Your task to perform on an android device: Go to network settings Image 0: 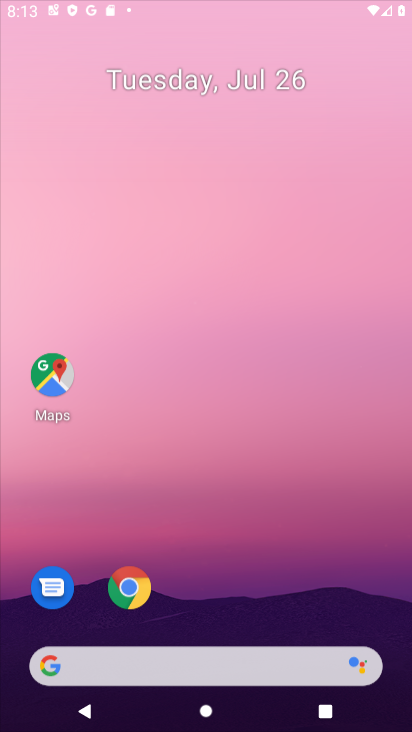
Step 0: press home button
Your task to perform on an android device: Go to network settings Image 1: 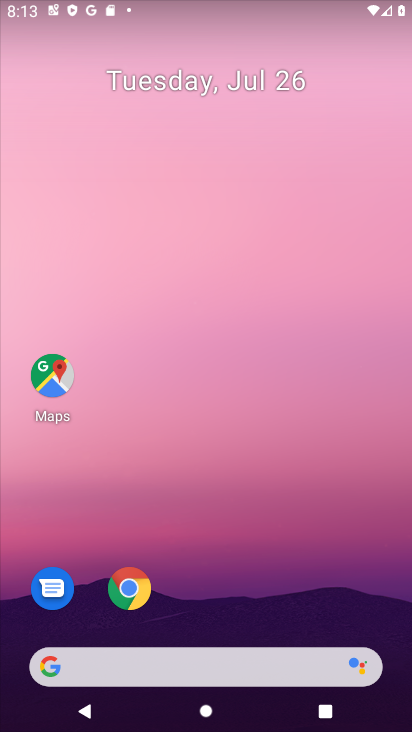
Step 1: drag from (249, 620) to (199, 111)
Your task to perform on an android device: Go to network settings Image 2: 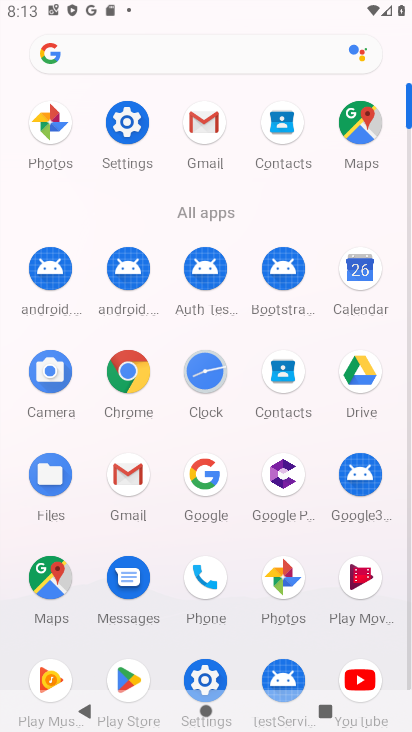
Step 2: click (128, 128)
Your task to perform on an android device: Go to network settings Image 3: 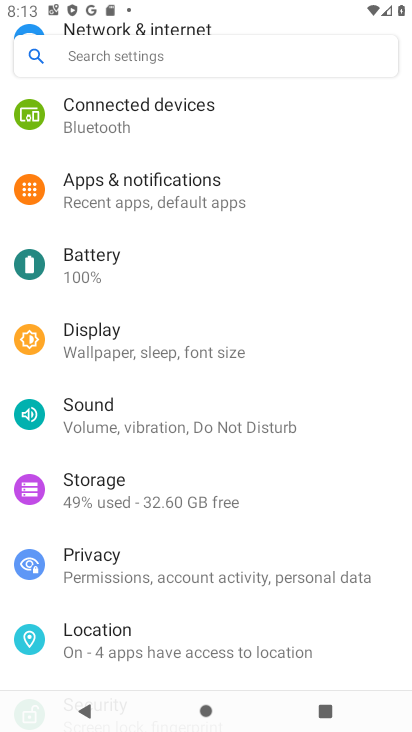
Step 3: drag from (180, 145) to (182, 275)
Your task to perform on an android device: Go to network settings Image 4: 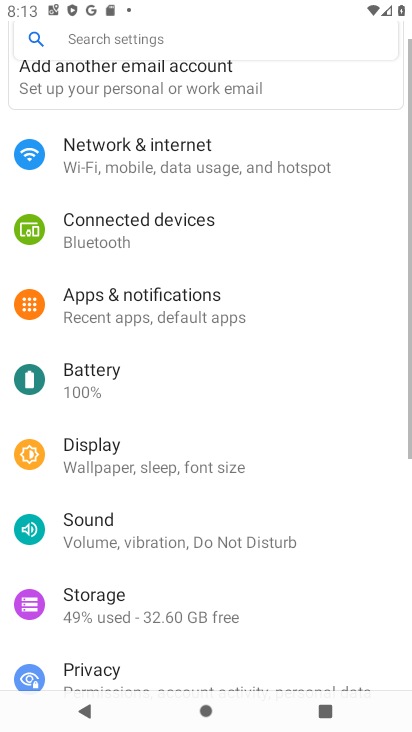
Step 4: click (157, 163)
Your task to perform on an android device: Go to network settings Image 5: 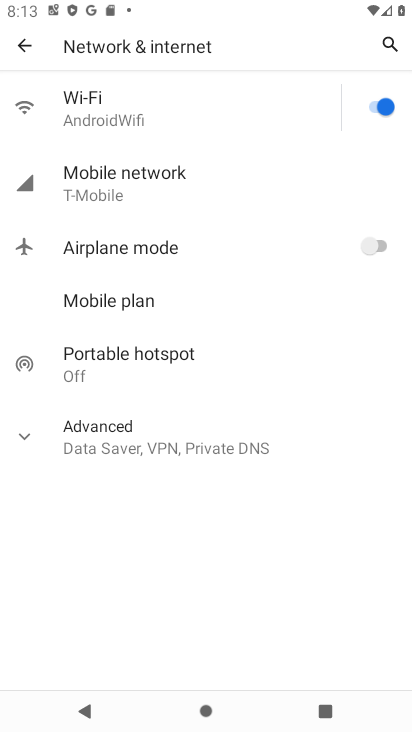
Step 5: task complete